Your task to perform on an android device: Open Reddit.com Image 0: 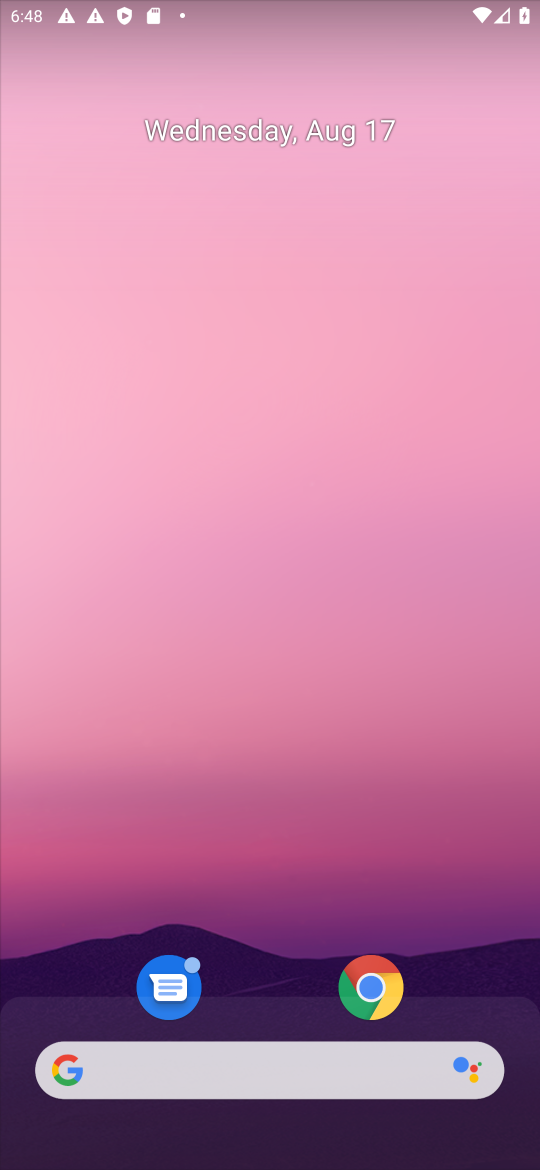
Step 0: drag from (467, 1021) to (294, 24)
Your task to perform on an android device: Open Reddit.com Image 1: 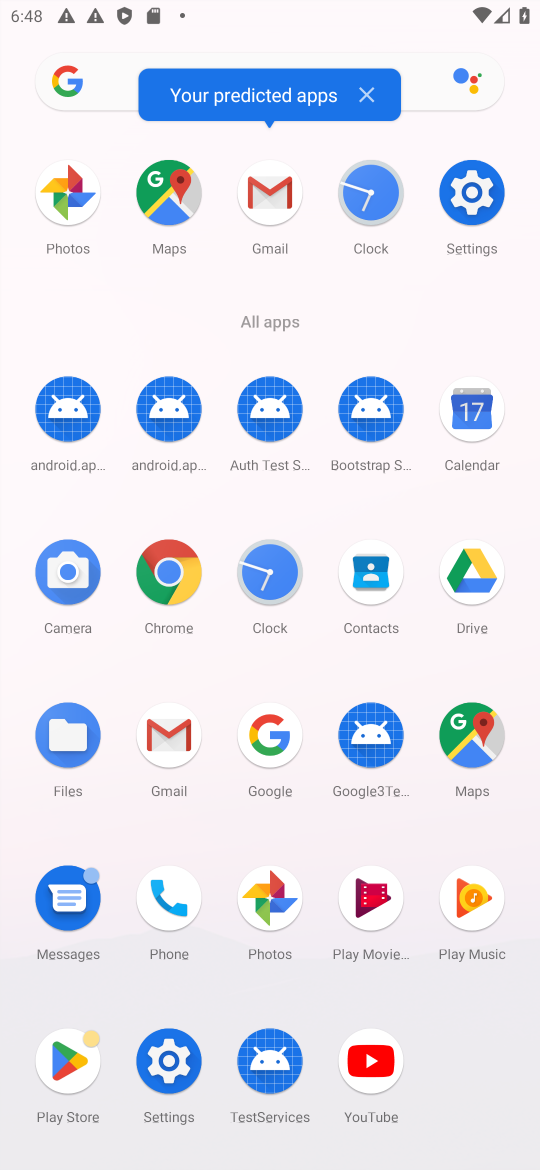
Step 1: click (264, 738)
Your task to perform on an android device: Open Reddit.com Image 2: 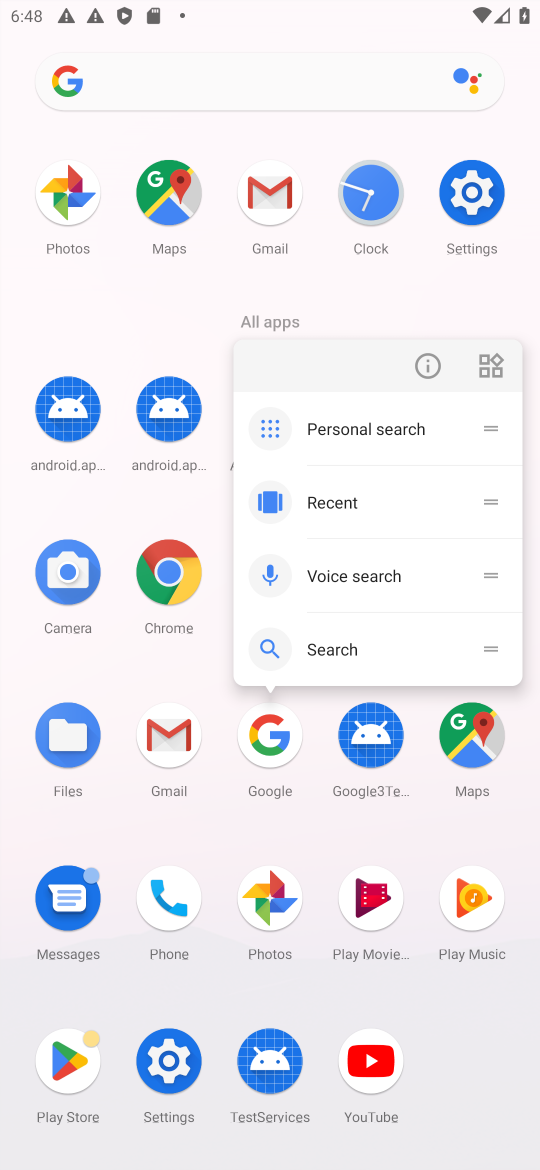
Step 2: click (269, 735)
Your task to perform on an android device: Open Reddit.com Image 3: 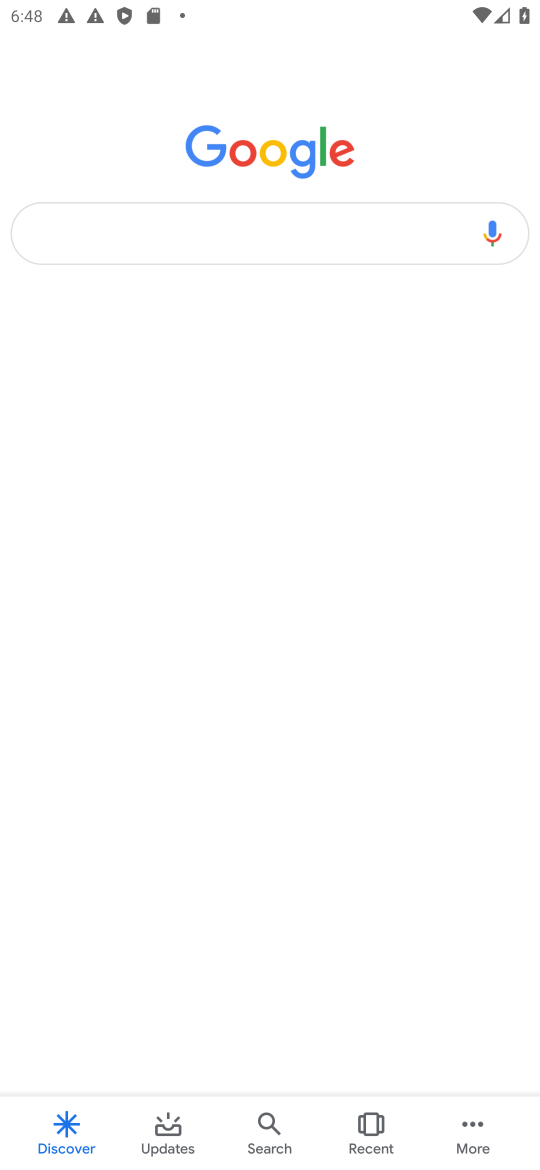
Step 3: click (211, 233)
Your task to perform on an android device: Open Reddit.com Image 4: 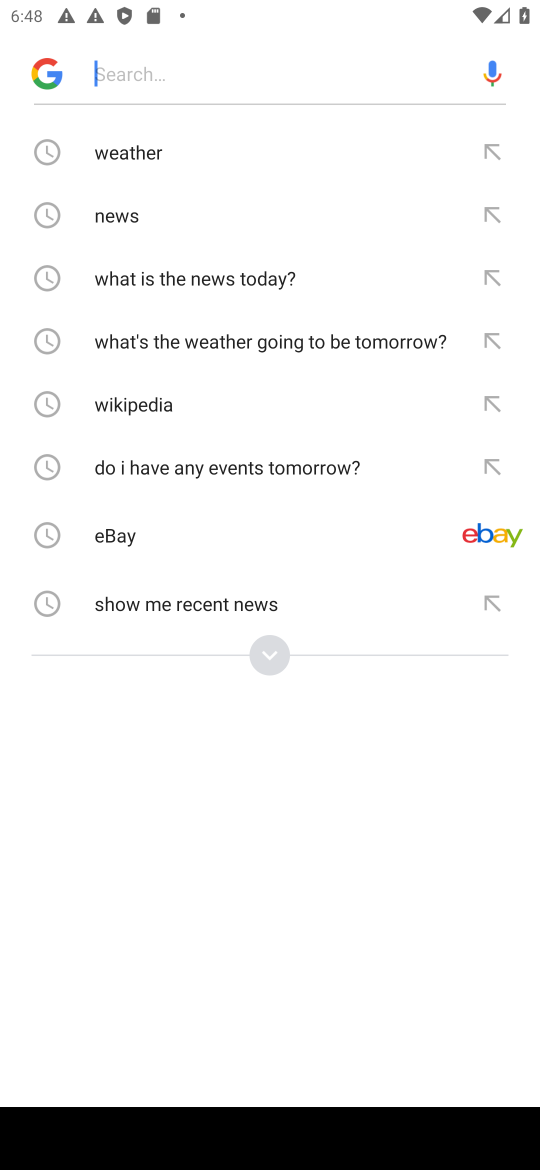
Step 4: type "Reddit.com"
Your task to perform on an android device: Open Reddit.com Image 5: 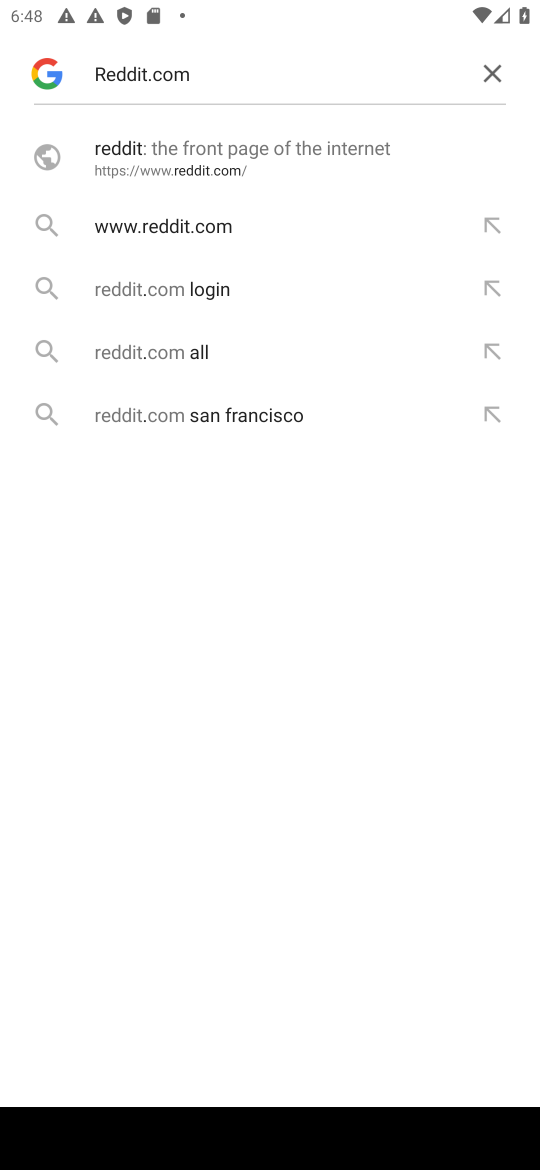
Step 5: click (289, 153)
Your task to perform on an android device: Open Reddit.com Image 6: 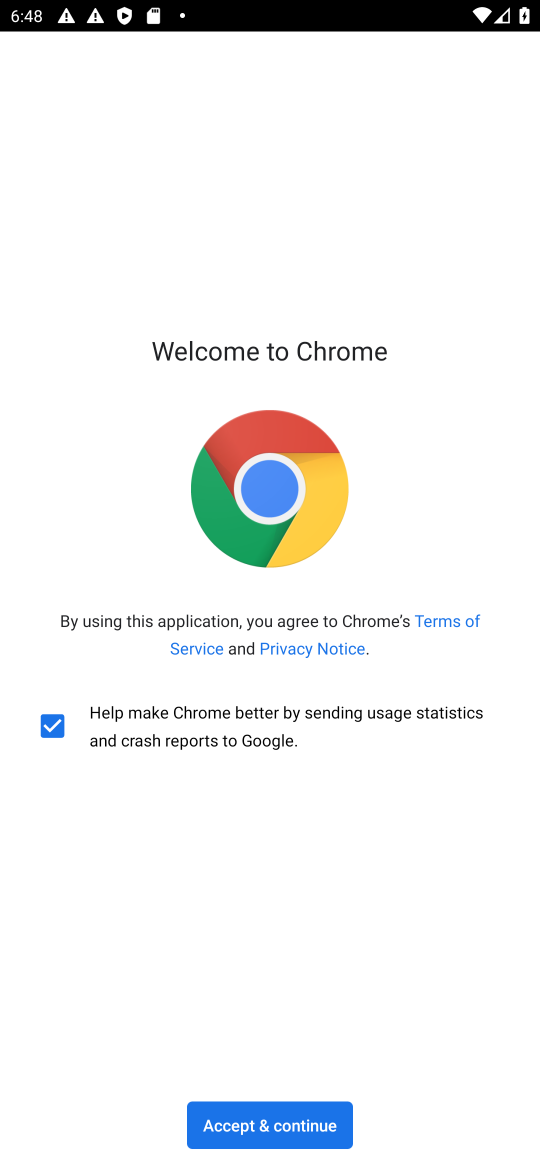
Step 6: click (250, 1130)
Your task to perform on an android device: Open Reddit.com Image 7: 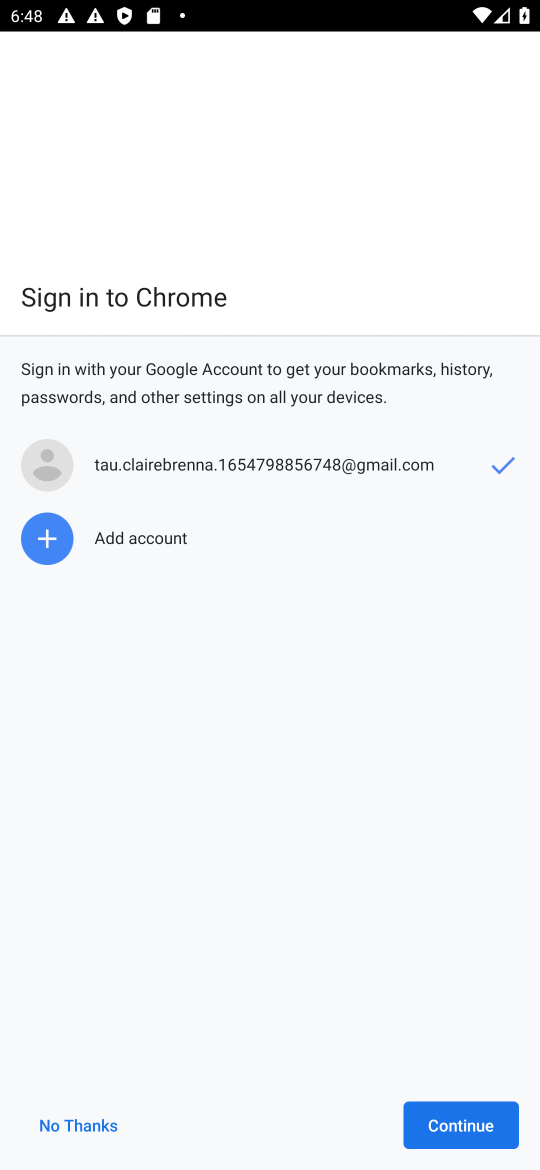
Step 7: click (448, 1118)
Your task to perform on an android device: Open Reddit.com Image 8: 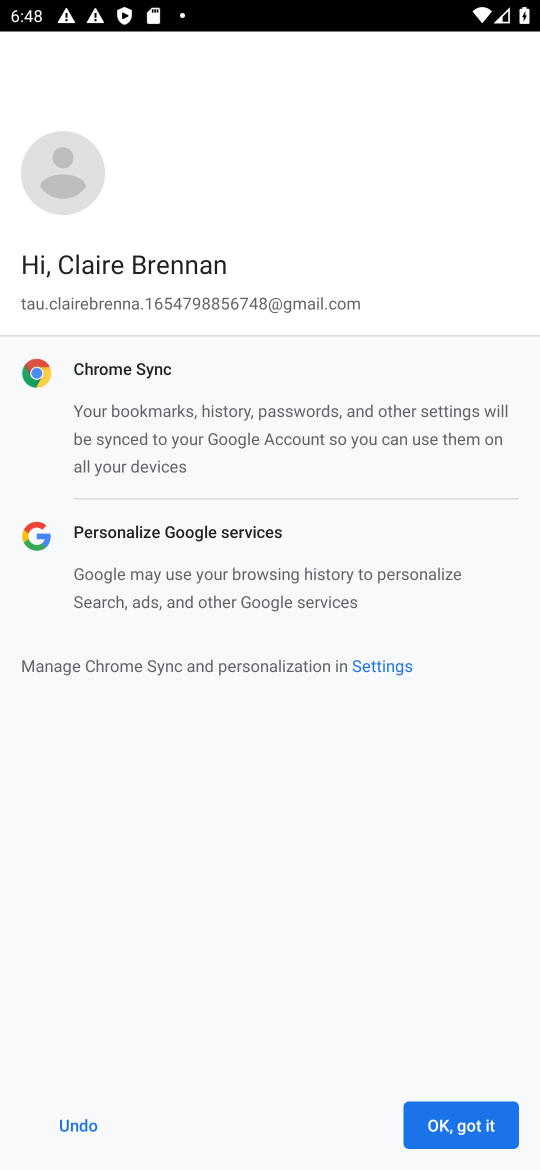
Step 8: click (448, 1118)
Your task to perform on an android device: Open Reddit.com Image 9: 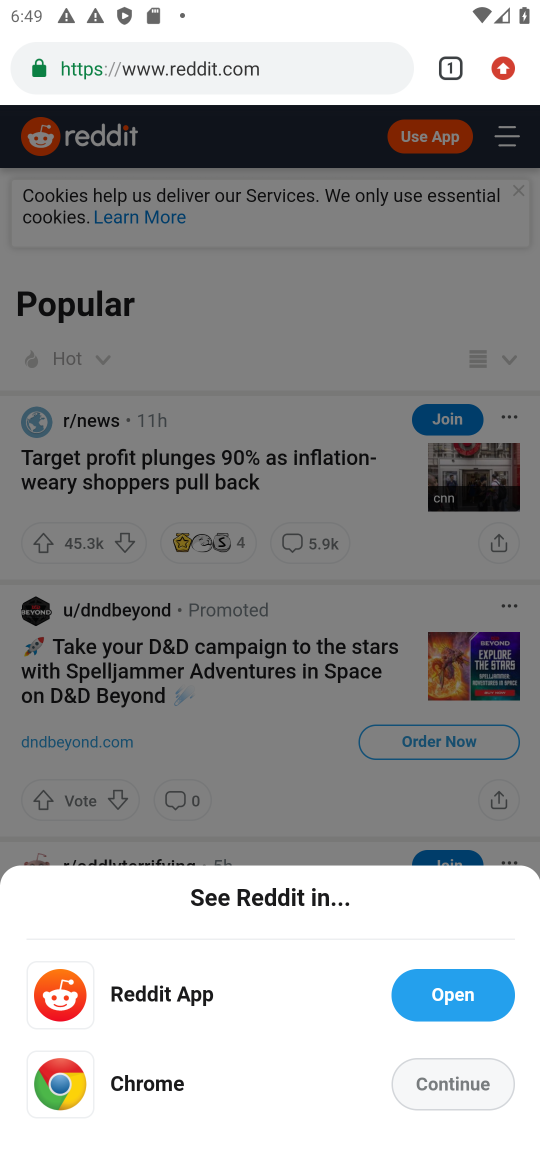
Step 9: task complete